Your task to perform on an android device: Check the news Image 0: 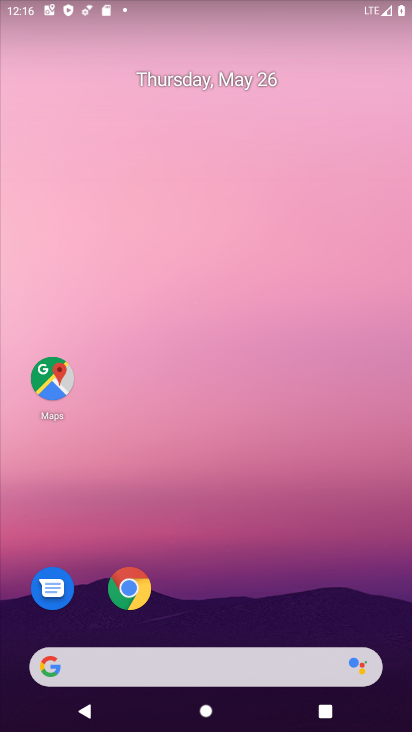
Step 0: drag from (265, 561) to (139, 3)
Your task to perform on an android device: Check the news Image 1: 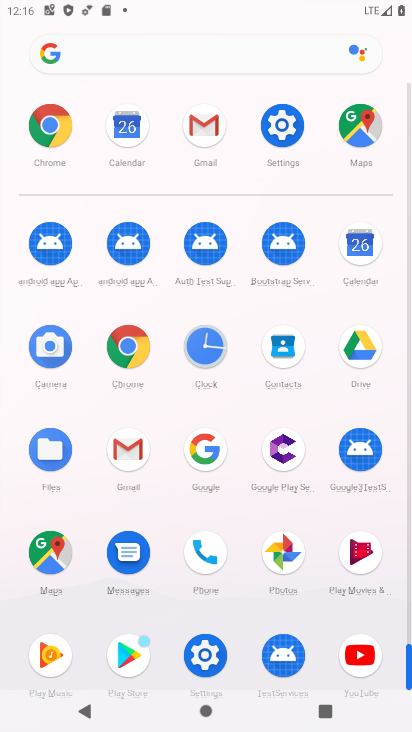
Step 1: click (127, 344)
Your task to perform on an android device: Check the news Image 2: 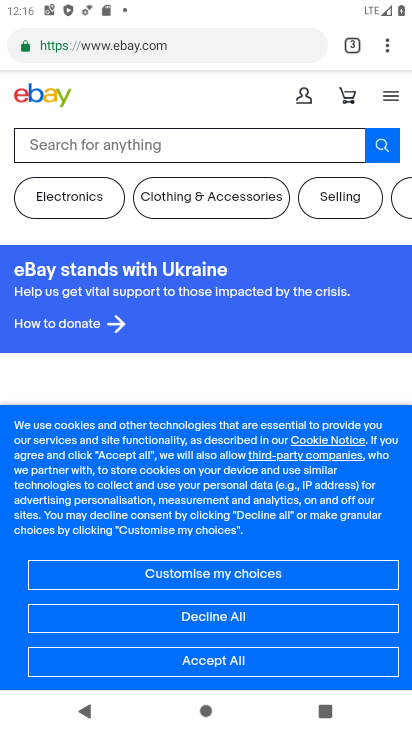
Step 2: click (162, 38)
Your task to perform on an android device: Check the news Image 3: 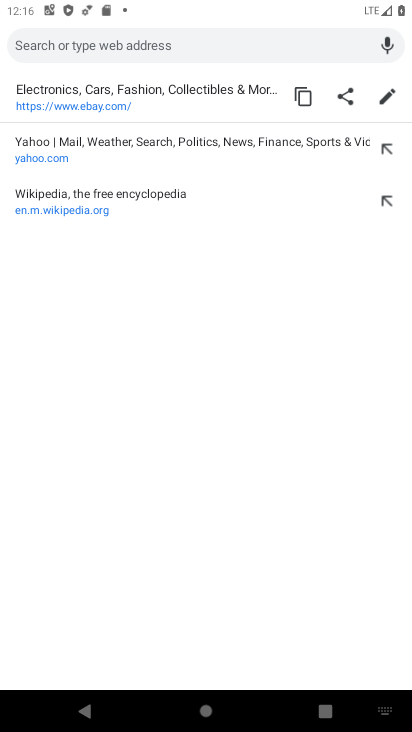
Step 3: type "Check the news"
Your task to perform on an android device: Check the news Image 4: 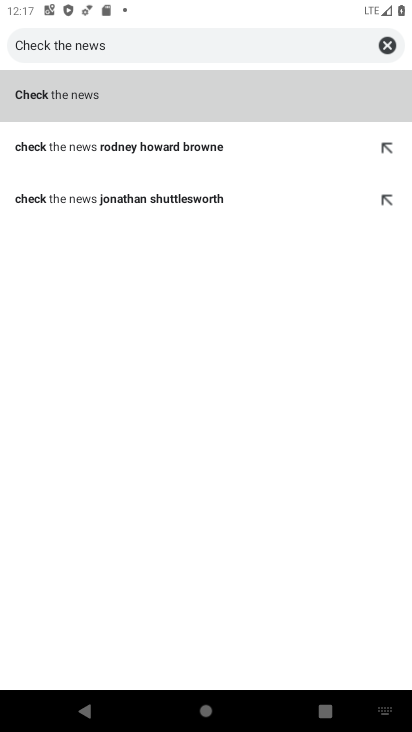
Step 4: click (41, 84)
Your task to perform on an android device: Check the news Image 5: 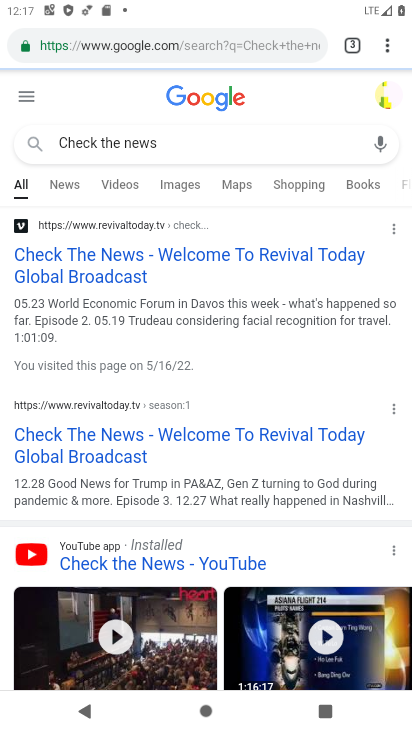
Step 5: click (68, 186)
Your task to perform on an android device: Check the news Image 6: 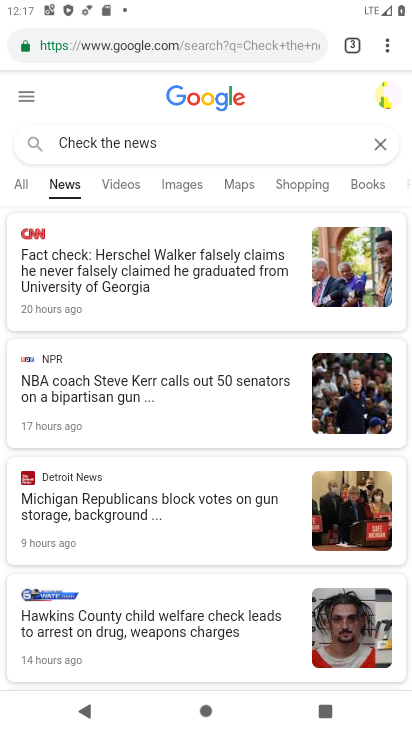
Step 6: task complete